Your task to perform on an android device: What is the news today? Image 0: 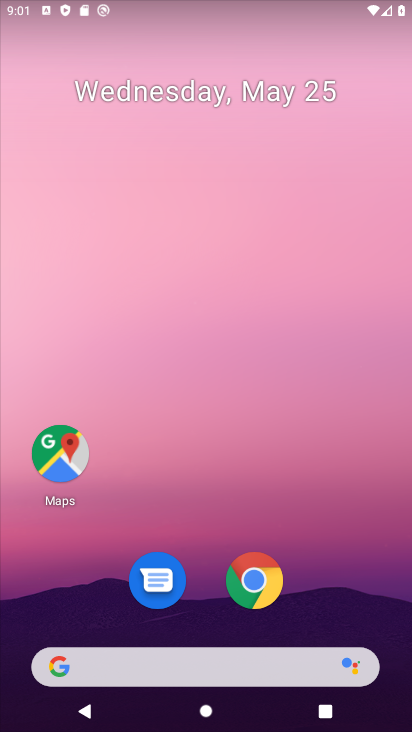
Step 0: click (148, 670)
Your task to perform on an android device: What is the news today? Image 1: 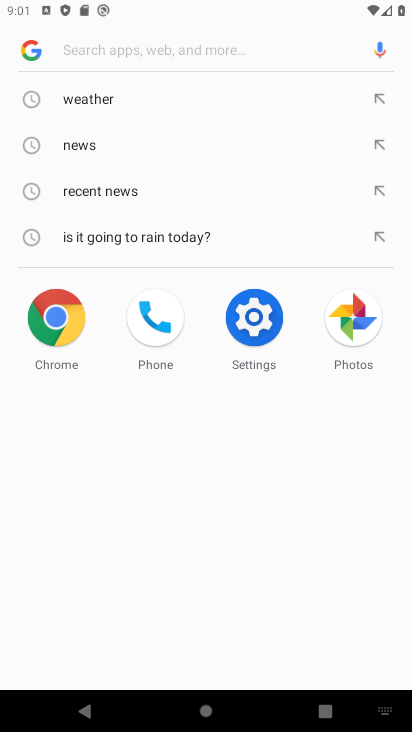
Step 1: click (71, 150)
Your task to perform on an android device: What is the news today? Image 2: 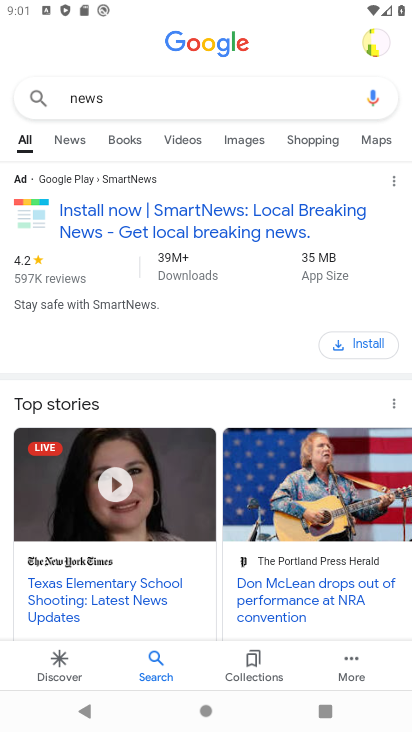
Step 2: task complete